Your task to perform on an android device: Open settings Image 0: 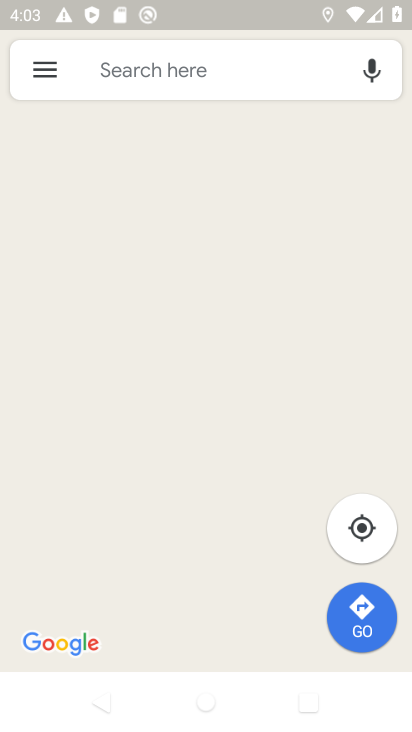
Step 0: click (257, 535)
Your task to perform on an android device: Open settings Image 1: 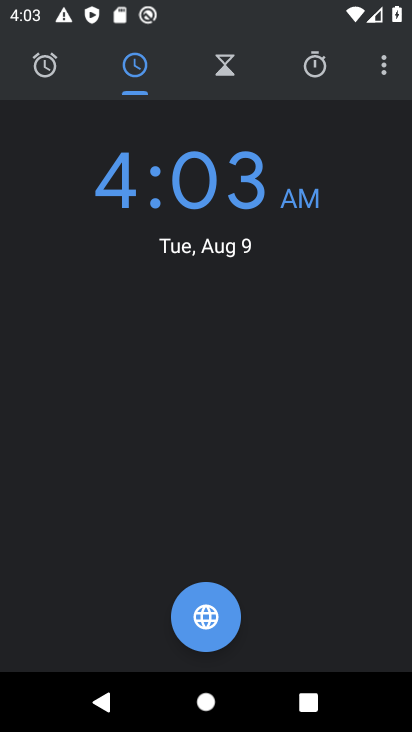
Step 1: drag from (175, 10) to (82, 432)
Your task to perform on an android device: Open settings Image 2: 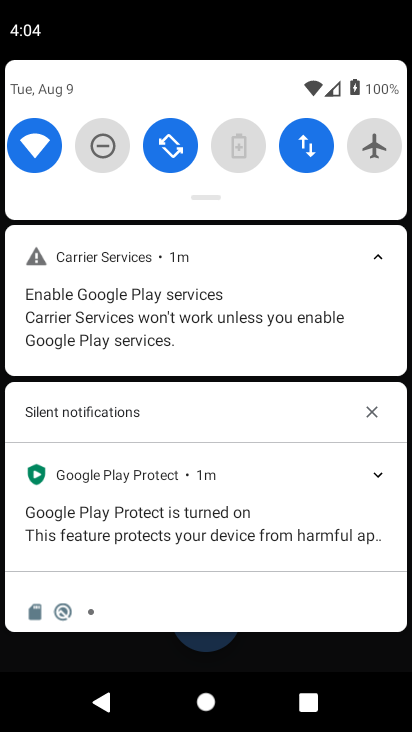
Step 2: drag from (225, 90) to (391, 386)
Your task to perform on an android device: Open settings Image 3: 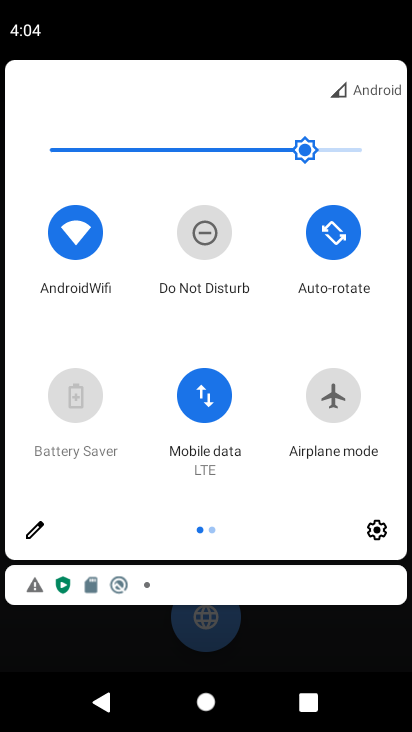
Step 3: click (377, 531)
Your task to perform on an android device: Open settings Image 4: 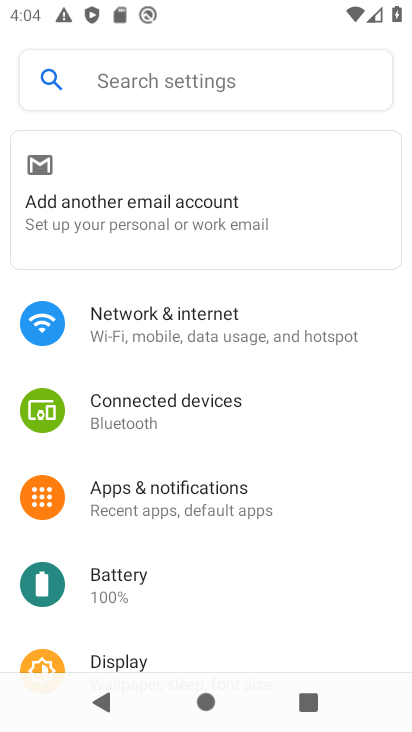
Step 4: task complete